Your task to perform on an android device: turn off notifications settings in the gmail app Image 0: 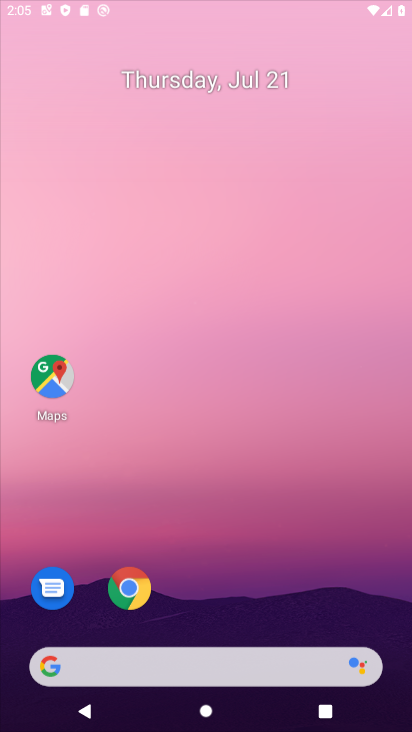
Step 0: click (293, 530)
Your task to perform on an android device: turn off notifications settings in the gmail app Image 1: 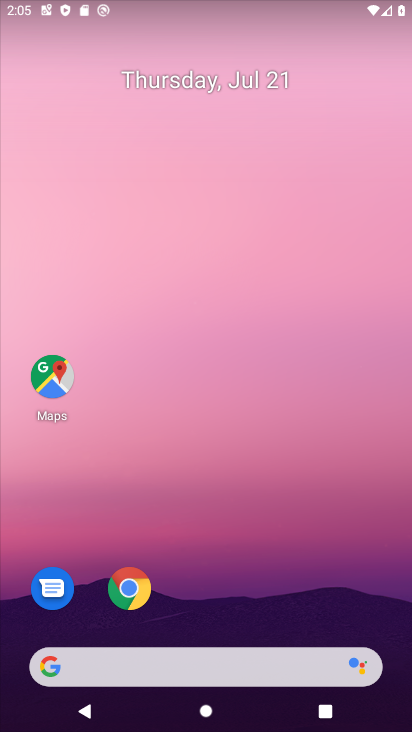
Step 1: drag from (173, 625) to (186, 276)
Your task to perform on an android device: turn off notifications settings in the gmail app Image 2: 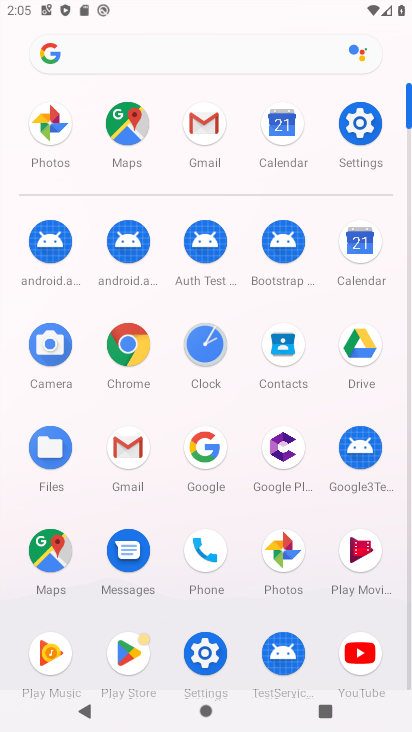
Step 2: click (125, 453)
Your task to perform on an android device: turn off notifications settings in the gmail app Image 3: 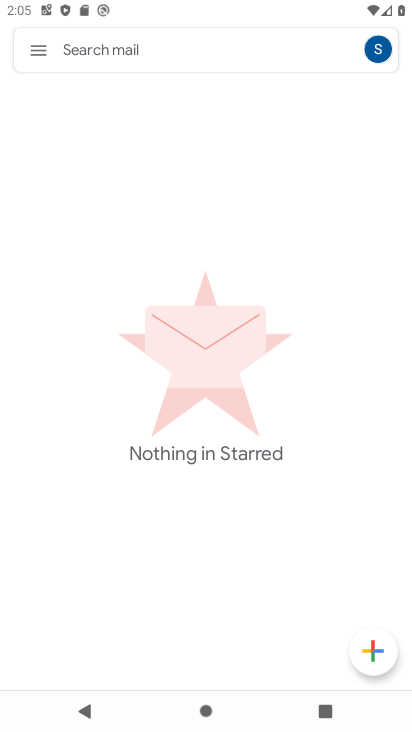
Step 3: drag from (204, 542) to (209, 390)
Your task to perform on an android device: turn off notifications settings in the gmail app Image 4: 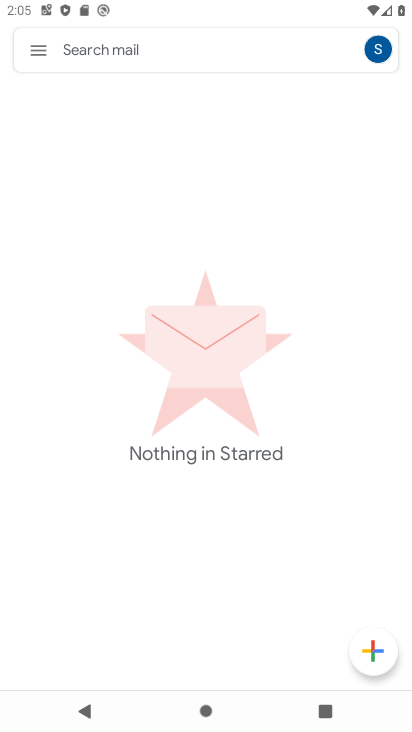
Step 4: click (37, 52)
Your task to perform on an android device: turn off notifications settings in the gmail app Image 5: 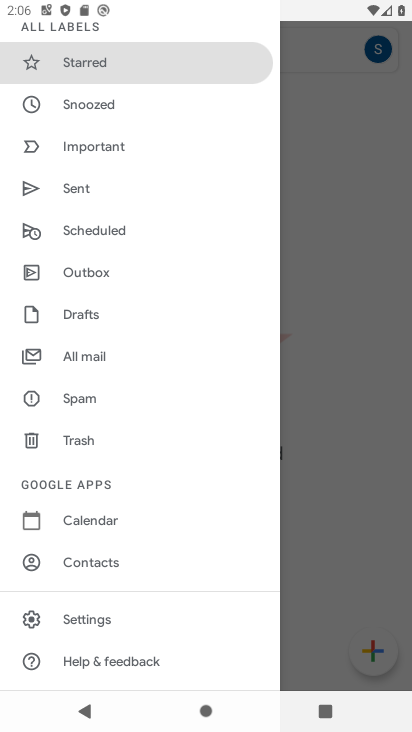
Step 5: drag from (96, 514) to (94, 323)
Your task to perform on an android device: turn off notifications settings in the gmail app Image 6: 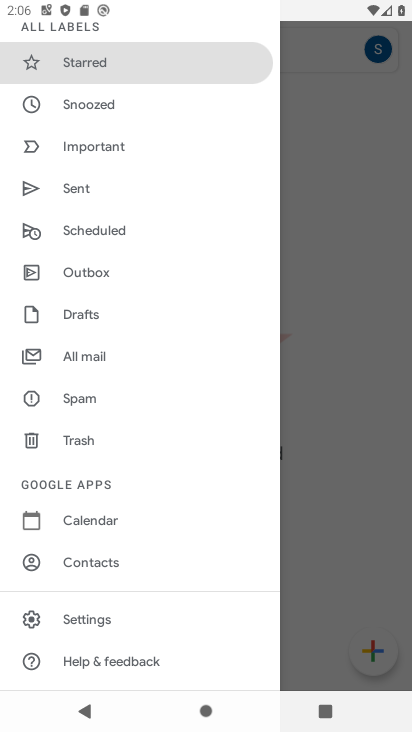
Step 6: drag from (149, 520) to (118, 312)
Your task to perform on an android device: turn off notifications settings in the gmail app Image 7: 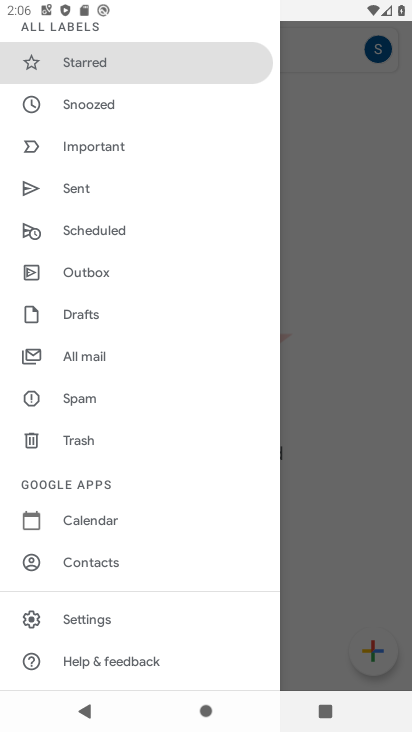
Step 7: click (106, 623)
Your task to perform on an android device: turn off notifications settings in the gmail app Image 8: 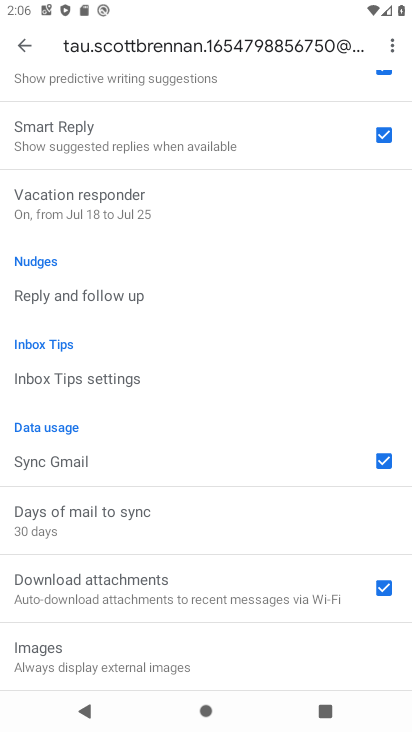
Step 8: drag from (163, 596) to (208, 288)
Your task to perform on an android device: turn off notifications settings in the gmail app Image 9: 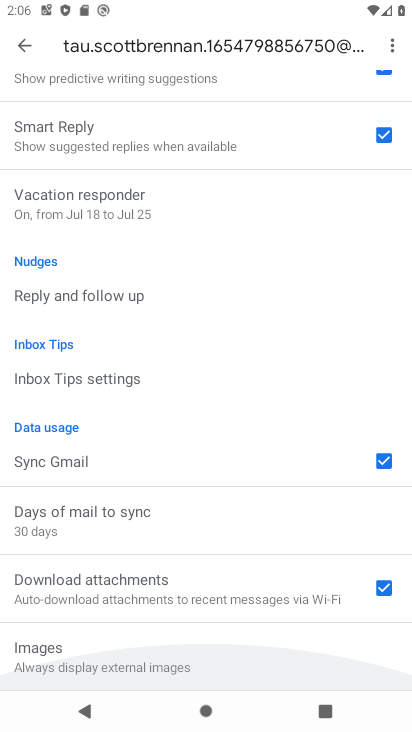
Step 9: drag from (203, 230) to (177, 728)
Your task to perform on an android device: turn off notifications settings in the gmail app Image 10: 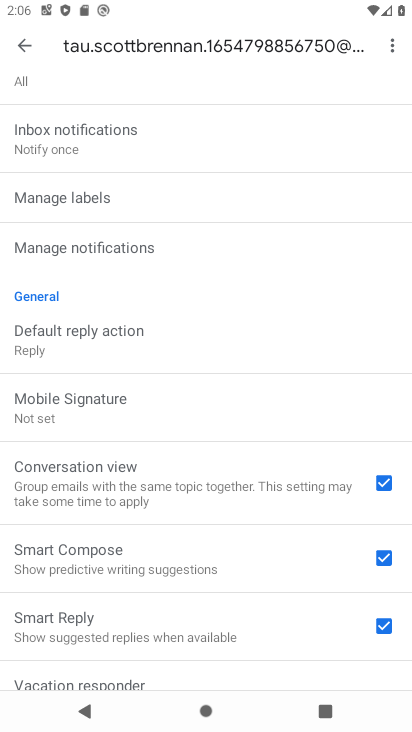
Step 10: drag from (195, 247) to (243, 578)
Your task to perform on an android device: turn off notifications settings in the gmail app Image 11: 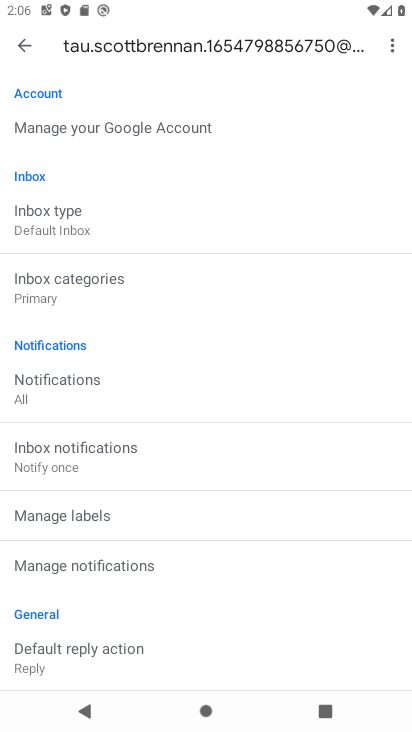
Step 11: drag from (131, 561) to (204, 17)
Your task to perform on an android device: turn off notifications settings in the gmail app Image 12: 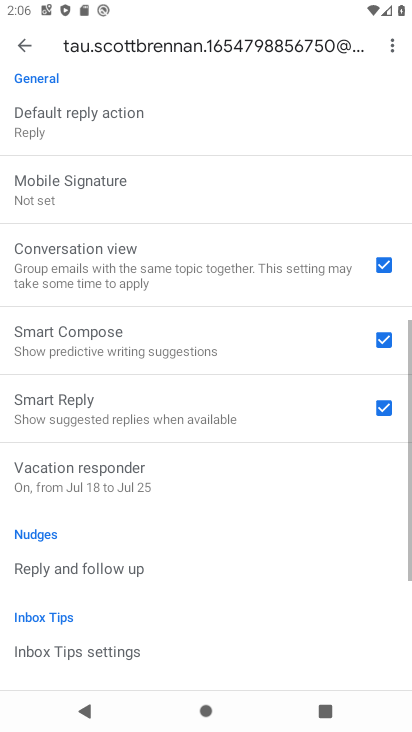
Step 12: drag from (222, 417) to (264, 119)
Your task to perform on an android device: turn off notifications settings in the gmail app Image 13: 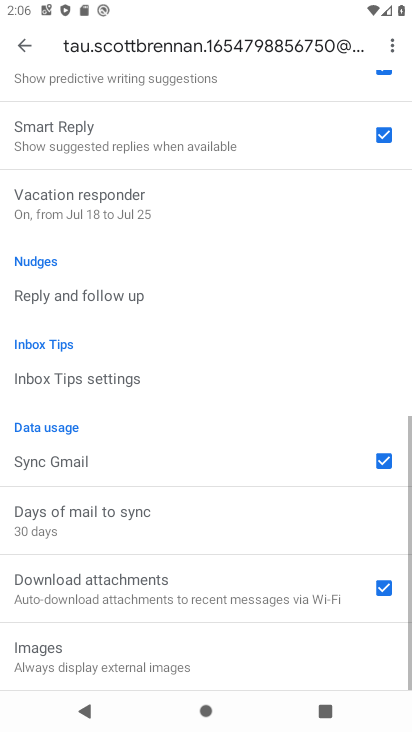
Step 13: drag from (225, 254) to (351, 728)
Your task to perform on an android device: turn off notifications settings in the gmail app Image 14: 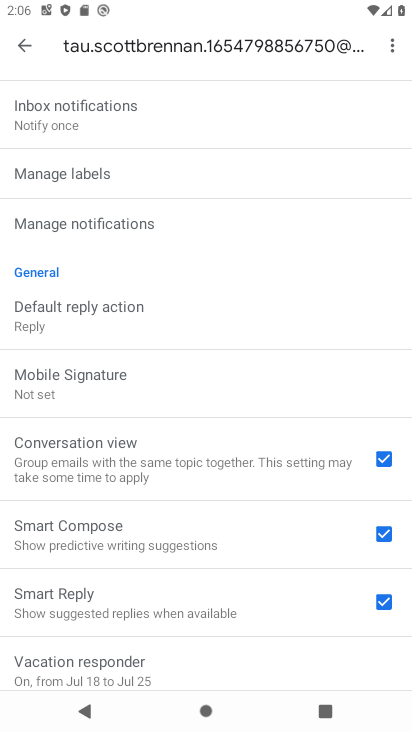
Step 14: click (57, 241)
Your task to perform on an android device: turn off notifications settings in the gmail app Image 15: 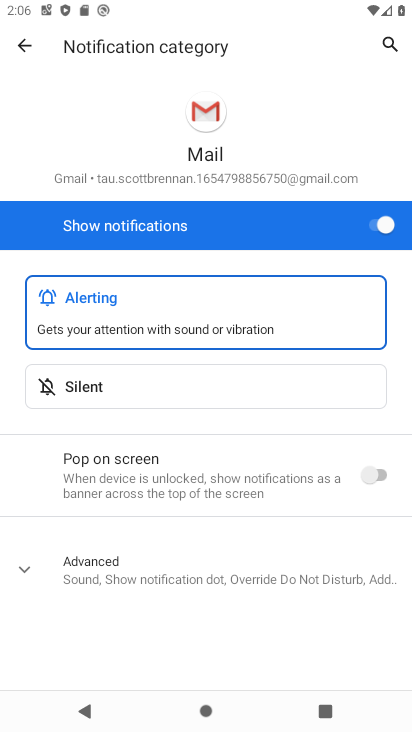
Step 15: drag from (200, 569) to (231, 402)
Your task to perform on an android device: turn off notifications settings in the gmail app Image 16: 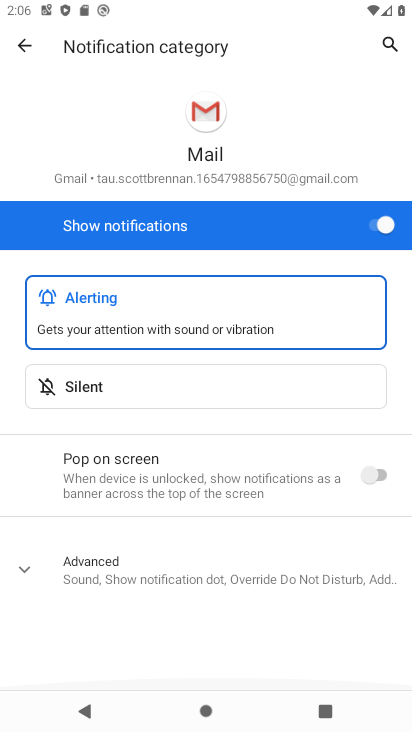
Step 16: drag from (228, 212) to (245, 476)
Your task to perform on an android device: turn off notifications settings in the gmail app Image 17: 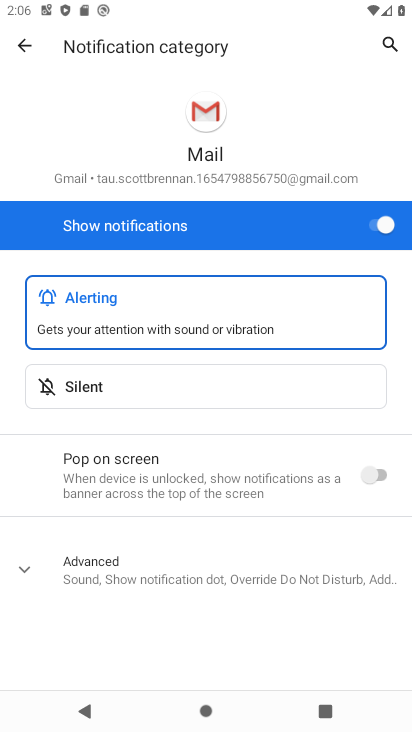
Step 17: drag from (167, 93) to (245, 548)
Your task to perform on an android device: turn off notifications settings in the gmail app Image 18: 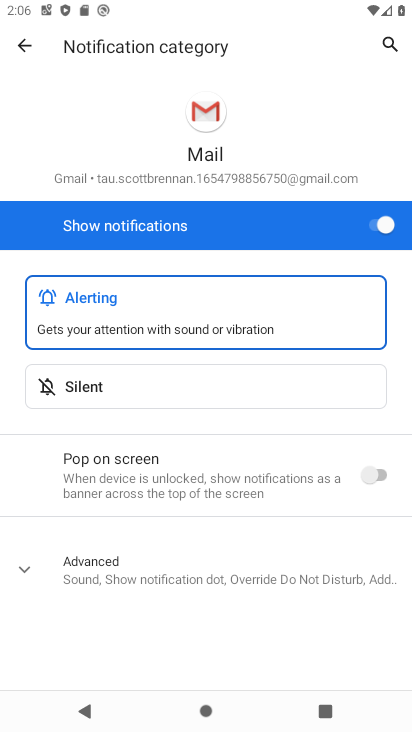
Step 18: drag from (224, 119) to (314, 723)
Your task to perform on an android device: turn off notifications settings in the gmail app Image 19: 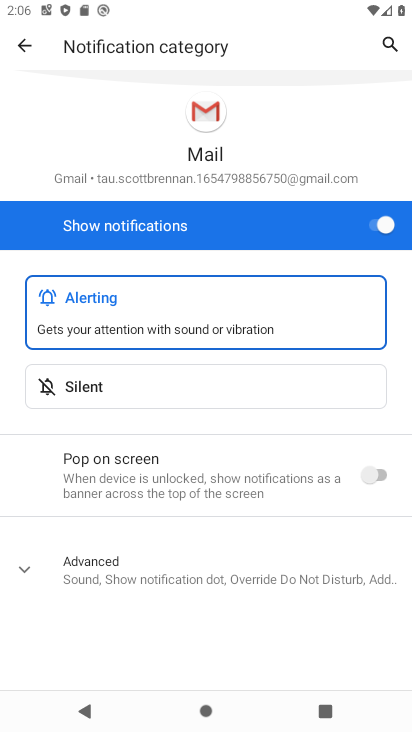
Step 19: drag from (203, 432) to (292, 229)
Your task to perform on an android device: turn off notifications settings in the gmail app Image 20: 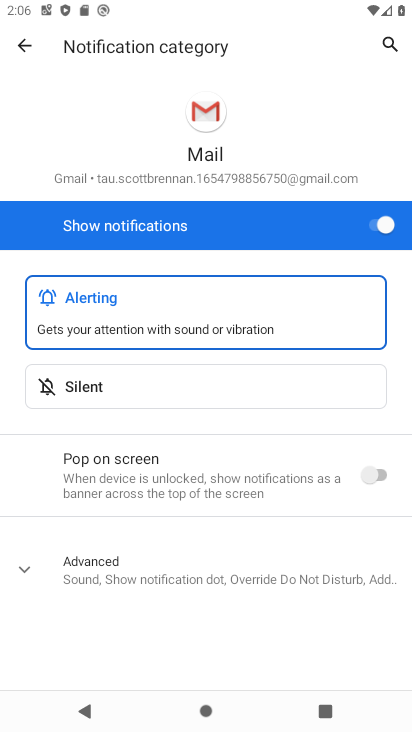
Step 20: click (378, 224)
Your task to perform on an android device: turn off notifications settings in the gmail app Image 21: 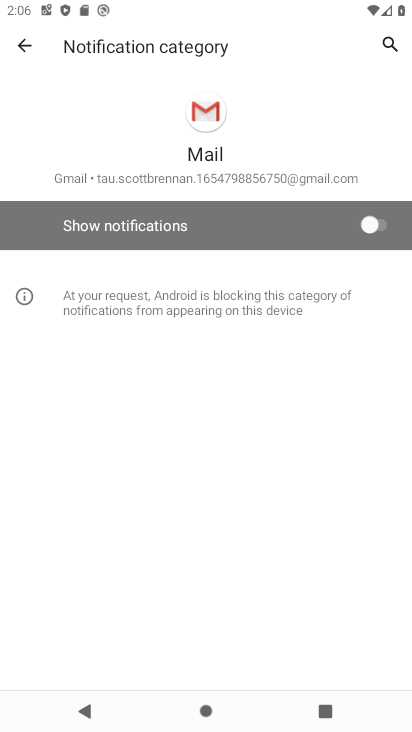
Step 21: task complete